Your task to perform on an android device: Open Chrome and go to settings Image 0: 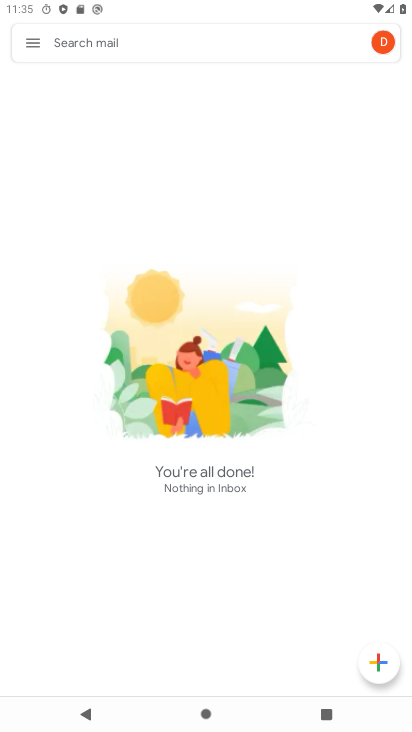
Step 0: press home button
Your task to perform on an android device: Open Chrome and go to settings Image 1: 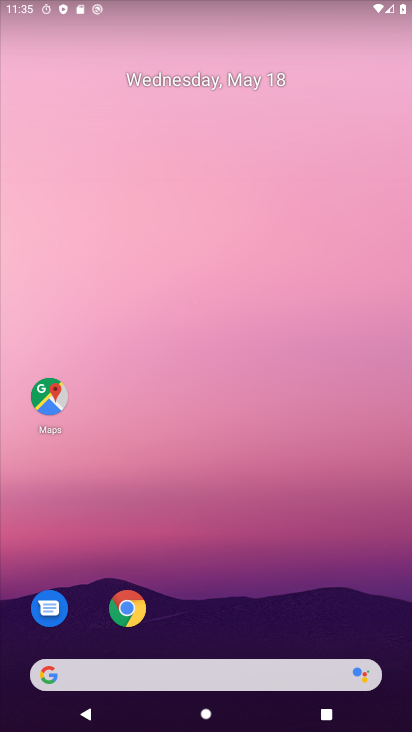
Step 1: click (138, 612)
Your task to perform on an android device: Open Chrome and go to settings Image 2: 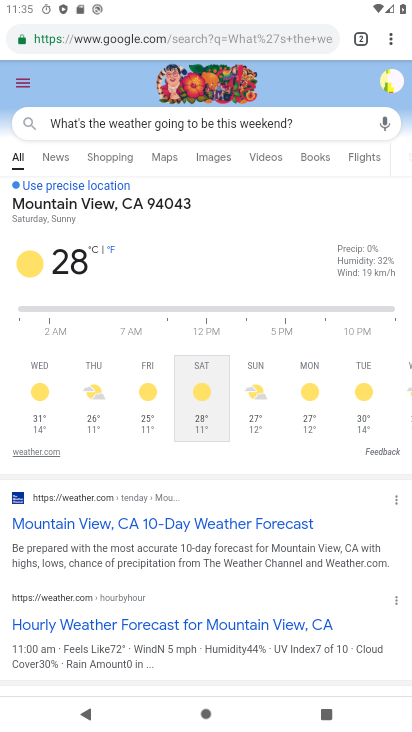
Step 2: click (388, 50)
Your task to perform on an android device: Open Chrome and go to settings Image 3: 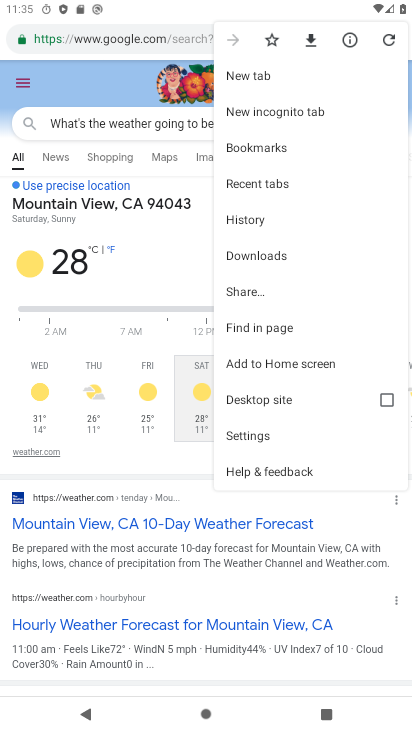
Step 3: click (284, 438)
Your task to perform on an android device: Open Chrome and go to settings Image 4: 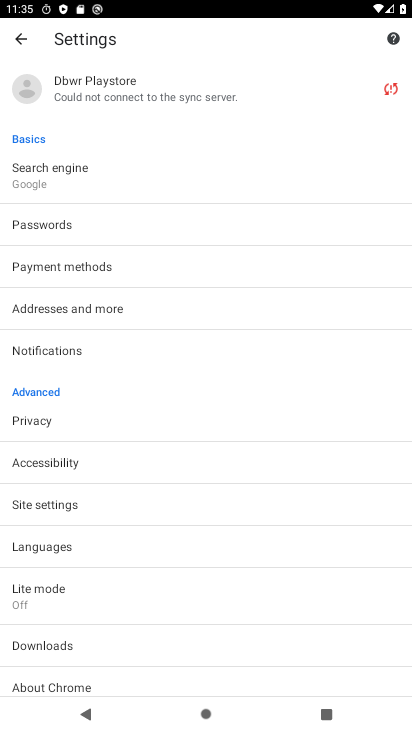
Step 4: task complete